Your task to perform on an android device: Toggle the flashlight Image 0: 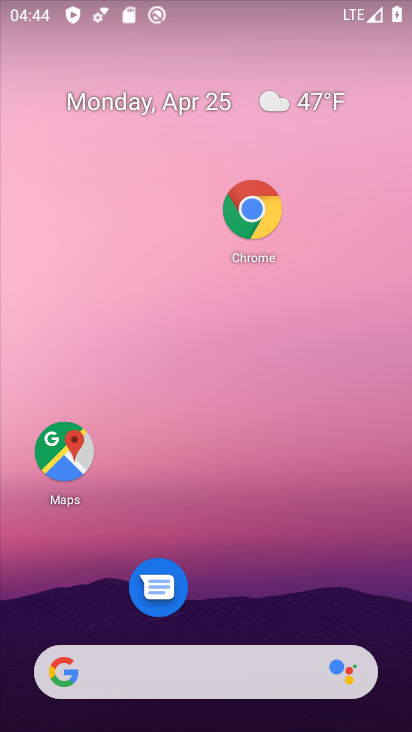
Step 0: drag from (291, 10) to (336, 511)
Your task to perform on an android device: Toggle the flashlight Image 1: 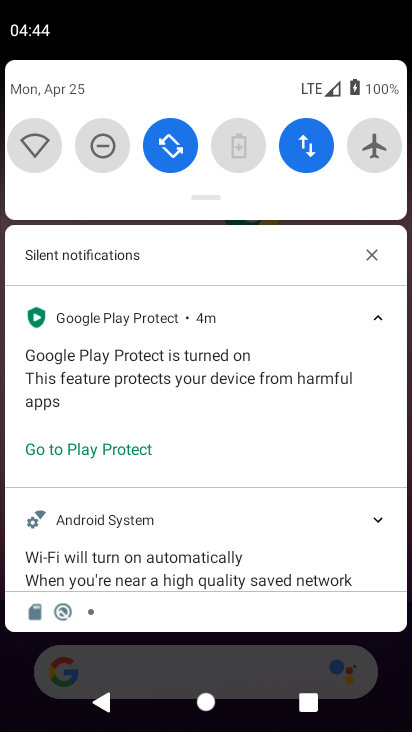
Step 1: drag from (281, 187) to (325, 562)
Your task to perform on an android device: Toggle the flashlight Image 2: 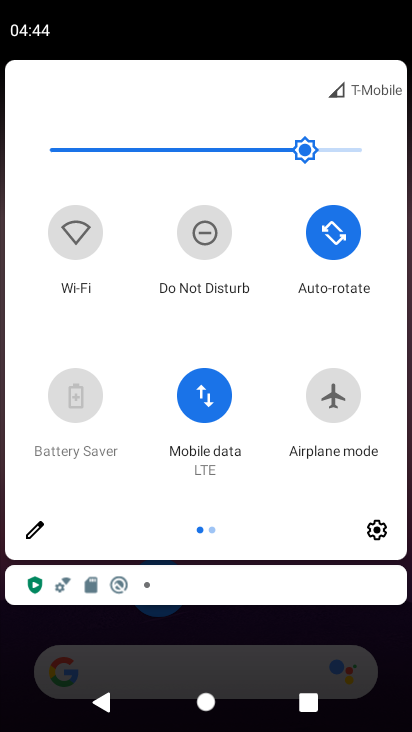
Step 2: drag from (333, 495) to (82, 502)
Your task to perform on an android device: Toggle the flashlight Image 3: 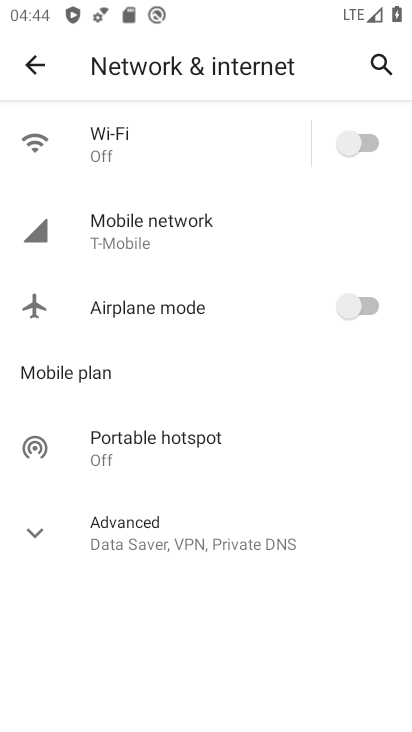
Step 3: drag from (249, 7) to (287, 576)
Your task to perform on an android device: Toggle the flashlight Image 4: 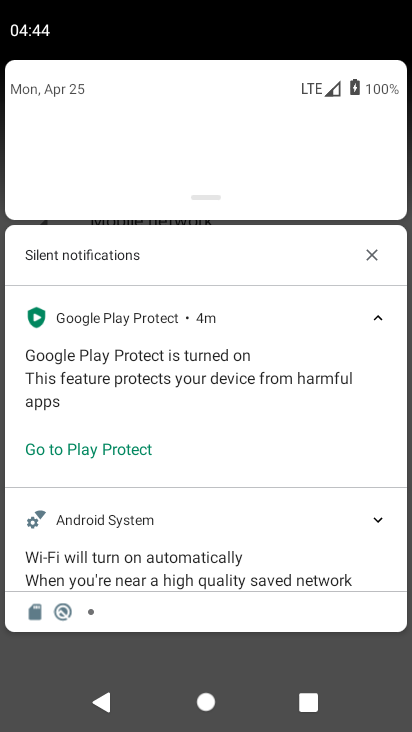
Step 4: drag from (217, 184) to (246, 437)
Your task to perform on an android device: Toggle the flashlight Image 5: 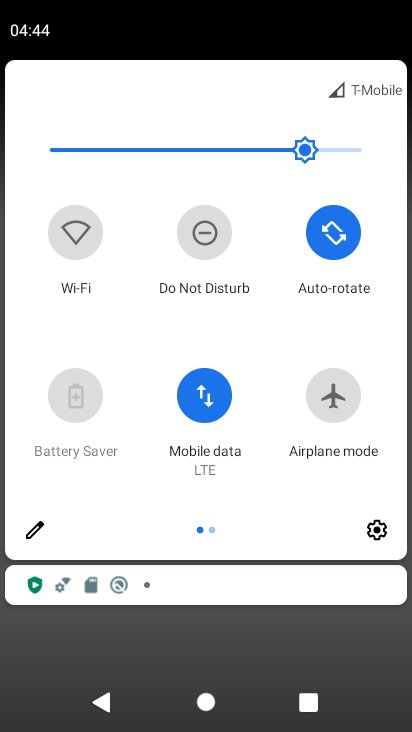
Step 5: drag from (384, 326) to (69, 333)
Your task to perform on an android device: Toggle the flashlight Image 6: 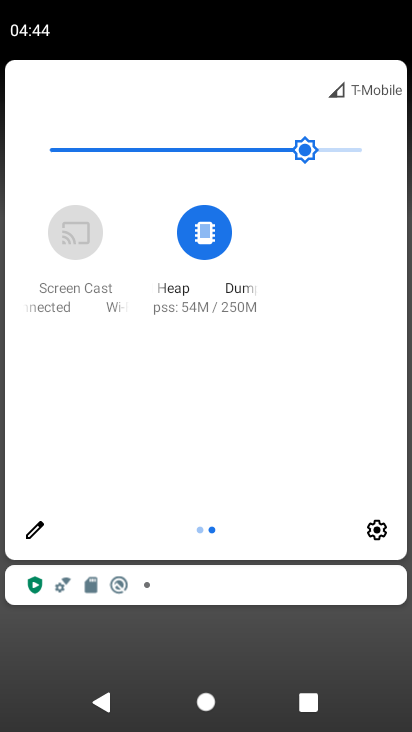
Step 6: click (37, 531)
Your task to perform on an android device: Toggle the flashlight Image 7: 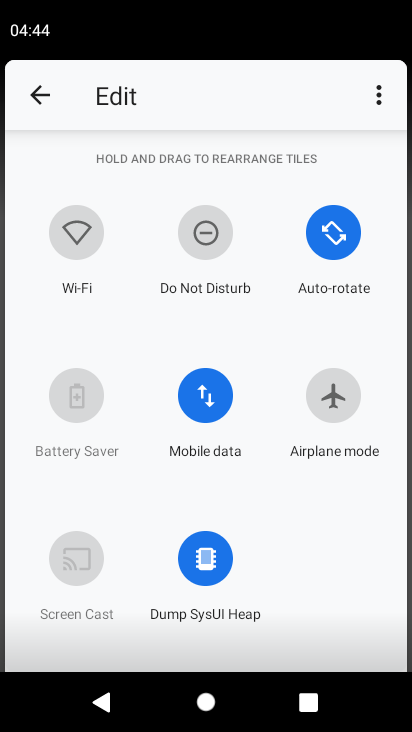
Step 7: task complete